Your task to perform on an android device: Is it going to rain tomorrow? Image 0: 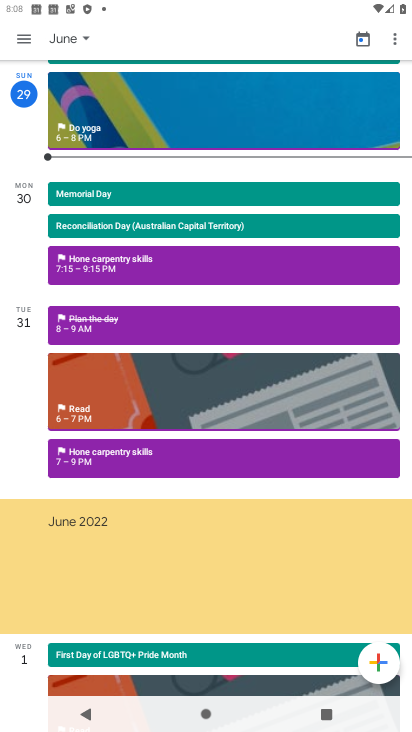
Step 0: press home button
Your task to perform on an android device: Is it going to rain tomorrow? Image 1: 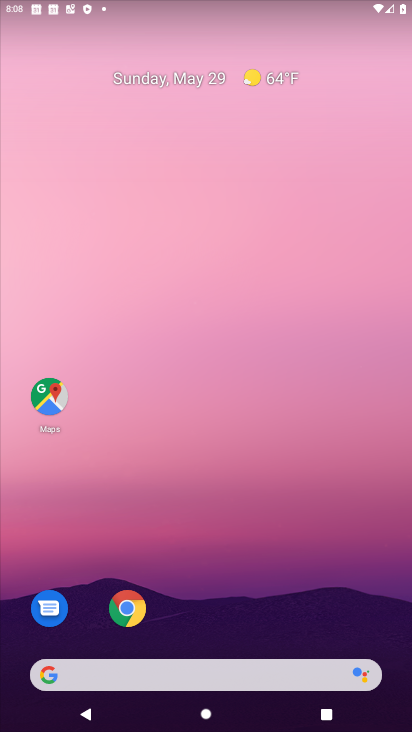
Step 1: click (209, 554)
Your task to perform on an android device: Is it going to rain tomorrow? Image 2: 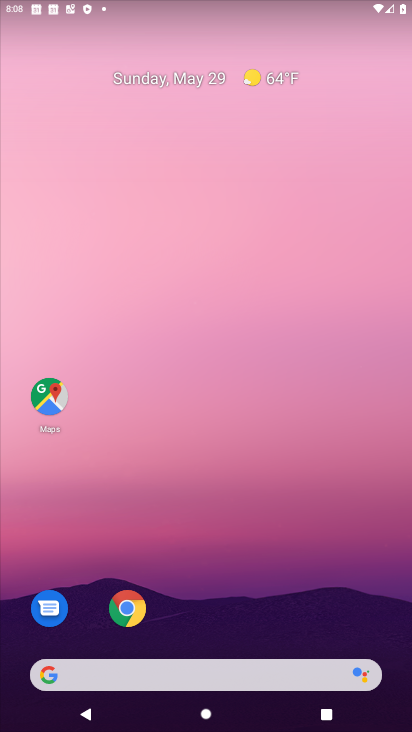
Step 2: click (252, 661)
Your task to perform on an android device: Is it going to rain tomorrow? Image 3: 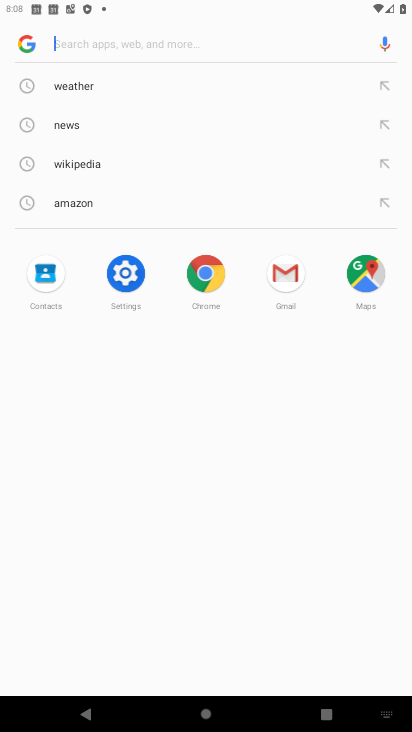
Step 3: click (71, 79)
Your task to perform on an android device: Is it going to rain tomorrow? Image 4: 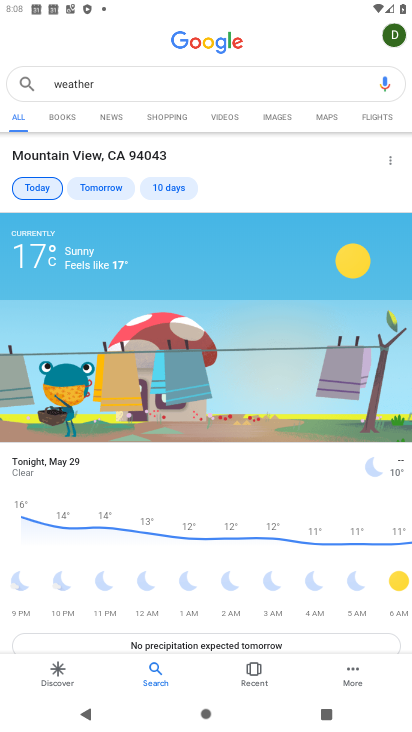
Step 4: click (95, 188)
Your task to perform on an android device: Is it going to rain tomorrow? Image 5: 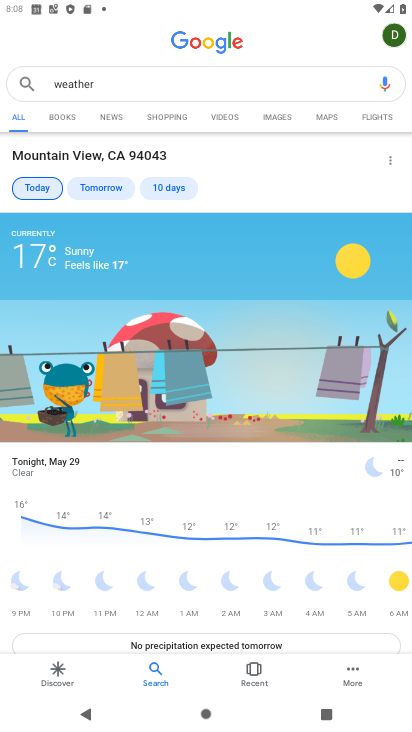
Step 5: click (95, 188)
Your task to perform on an android device: Is it going to rain tomorrow? Image 6: 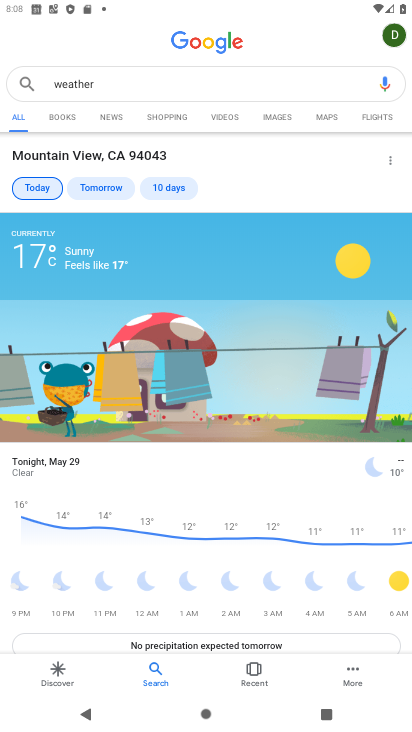
Step 6: click (95, 188)
Your task to perform on an android device: Is it going to rain tomorrow? Image 7: 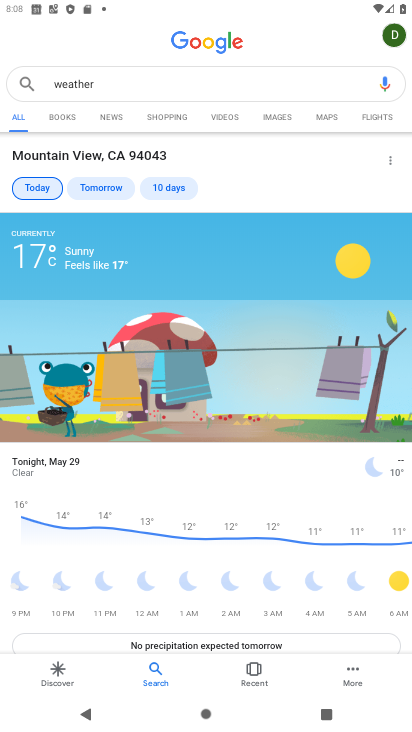
Step 7: click (95, 188)
Your task to perform on an android device: Is it going to rain tomorrow? Image 8: 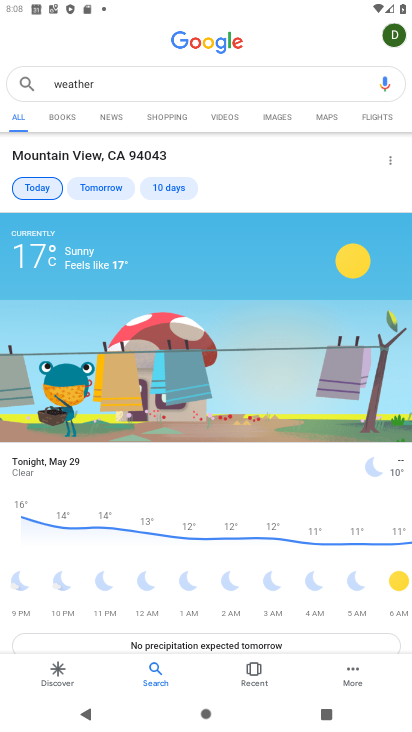
Step 8: click (95, 188)
Your task to perform on an android device: Is it going to rain tomorrow? Image 9: 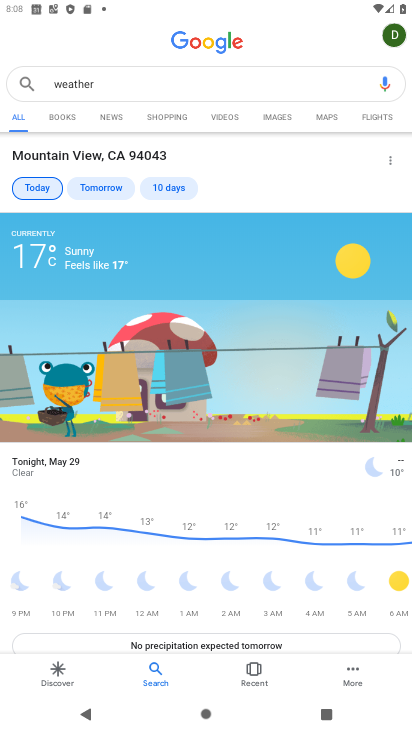
Step 9: click (95, 188)
Your task to perform on an android device: Is it going to rain tomorrow? Image 10: 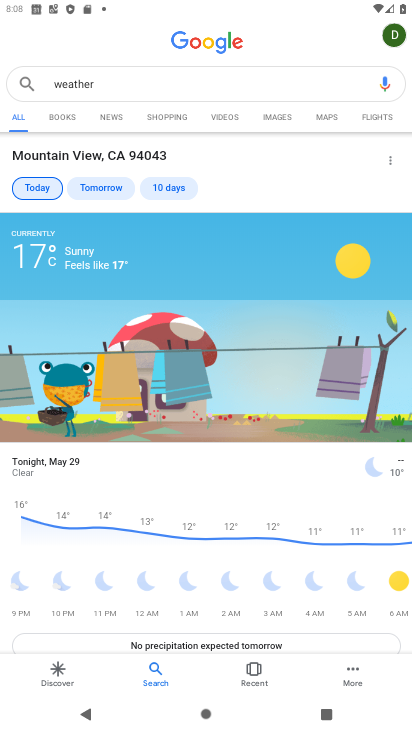
Step 10: click (95, 188)
Your task to perform on an android device: Is it going to rain tomorrow? Image 11: 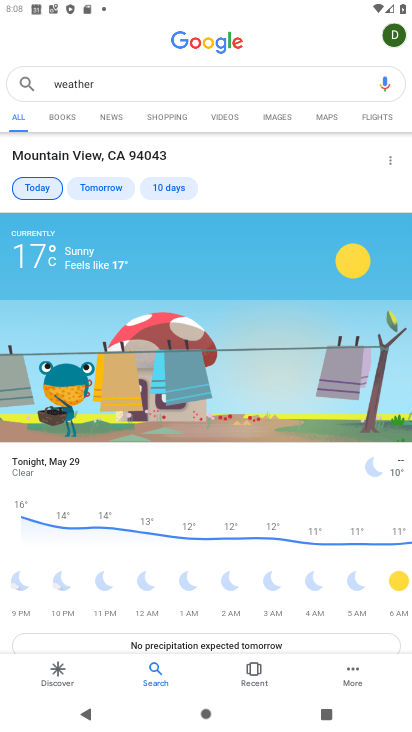
Step 11: click (95, 188)
Your task to perform on an android device: Is it going to rain tomorrow? Image 12: 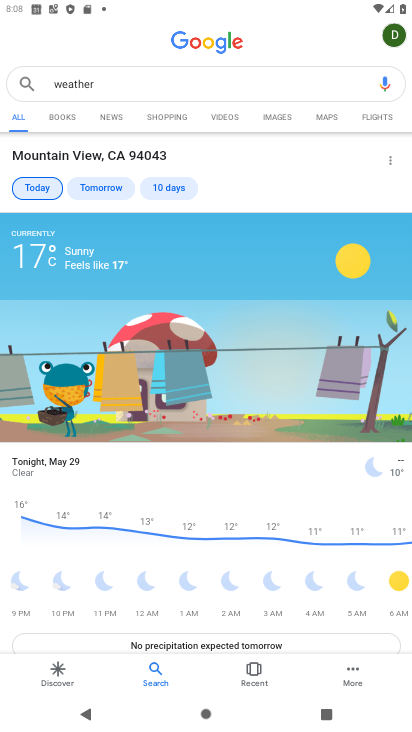
Step 12: click (95, 188)
Your task to perform on an android device: Is it going to rain tomorrow? Image 13: 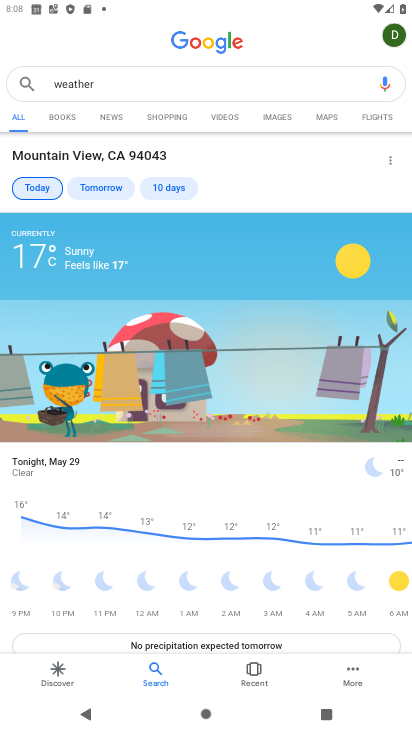
Step 13: click (95, 188)
Your task to perform on an android device: Is it going to rain tomorrow? Image 14: 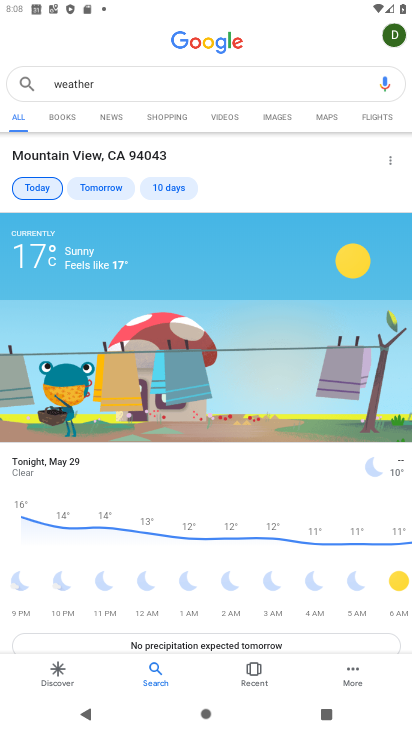
Step 14: click (95, 188)
Your task to perform on an android device: Is it going to rain tomorrow? Image 15: 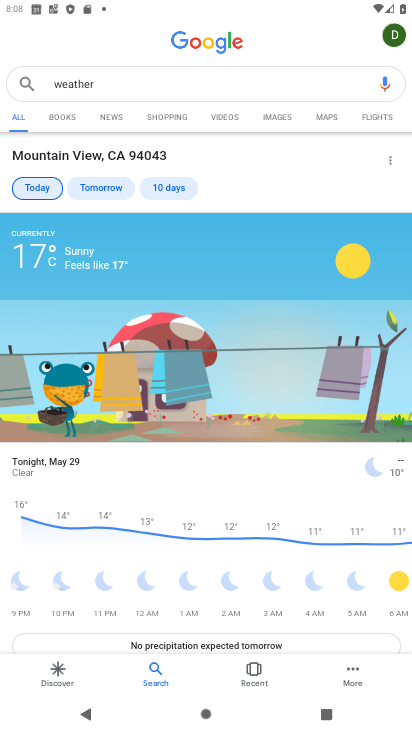
Step 15: click (95, 188)
Your task to perform on an android device: Is it going to rain tomorrow? Image 16: 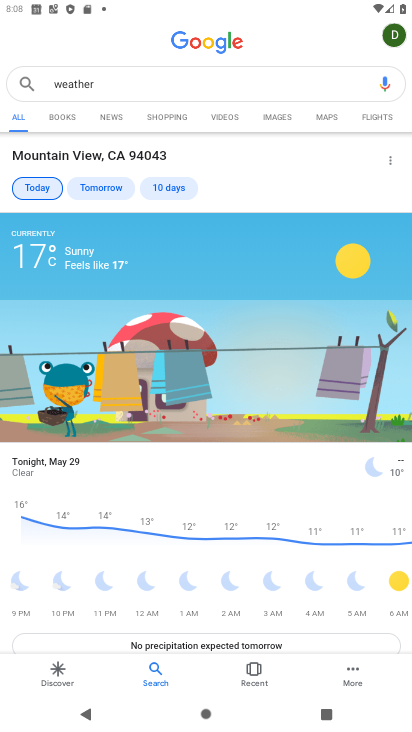
Step 16: click (95, 188)
Your task to perform on an android device: Is it going to rain tomorrow? Image 17: 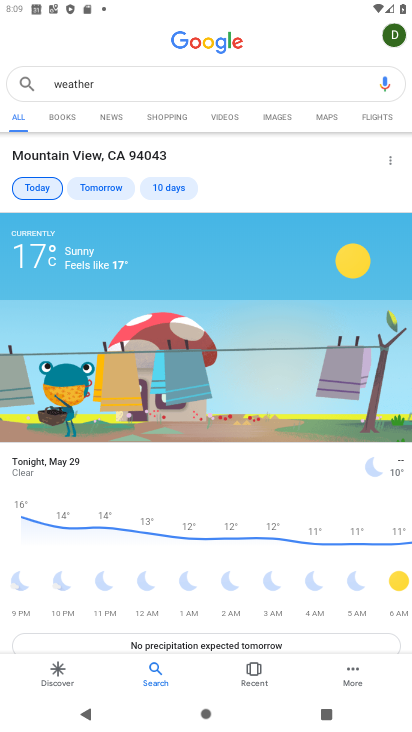
Step 17: click (119, 189)
Your task to perform on an android device: Is it going to rain tomorrow? Image 18: 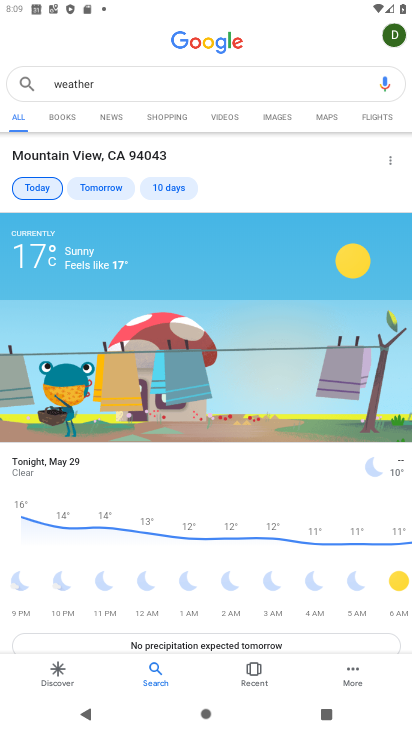
Step 18: click (119, 189)
Your task to perform on an android device: Is it going to rain tomorrow? Image 19: 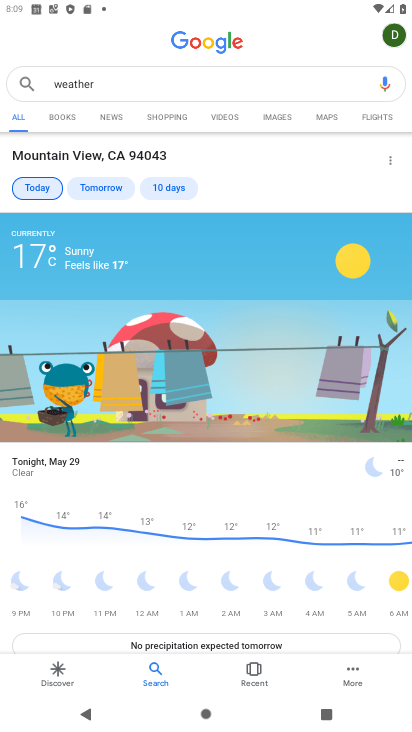
Step 19: click (119, 189)
Your task to perform on an android device: Is it going to rain tomorrow? Image 20: 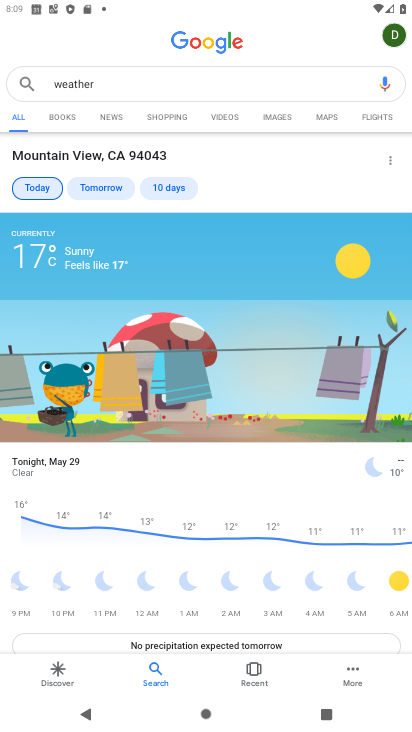
Step 20: click (119, 189)
Your task to perform on an android device: Is it going to rain tomorrow? Image 21: 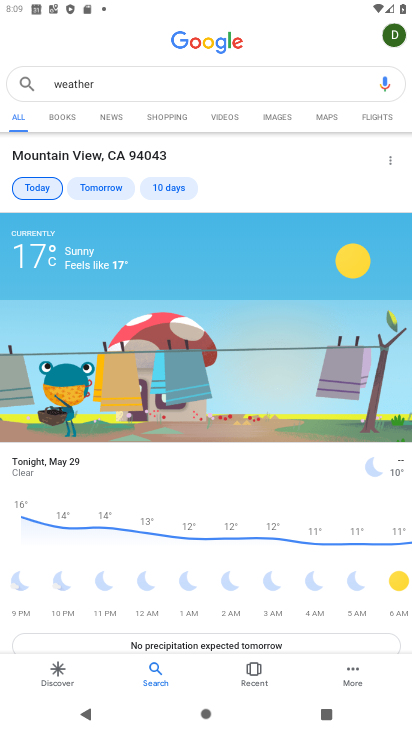
Step 21: click (119, 189)
Your task to perform on an android device: Is it going to rain tomorrow? Image 22: 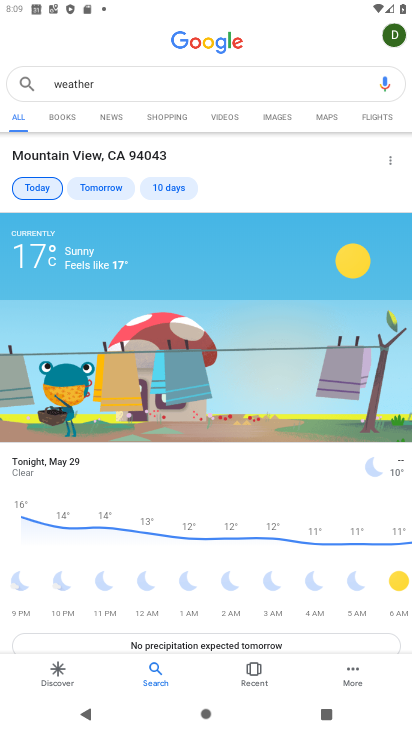
Step 22: task complete